Your task to perform on an android device: Go to sound settings Image 0: 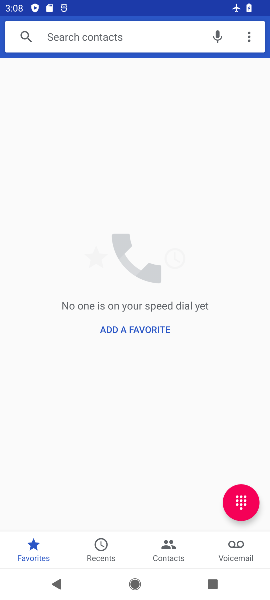
Step 0: press home button
Your task to perform on an android device: Go to sound settings Image 1: 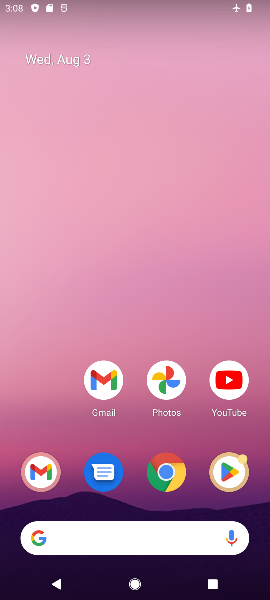
Step 1: drag from (183, 557) to (55, 42)
Your task to perform on an android device: Go to sound settings Image 2: 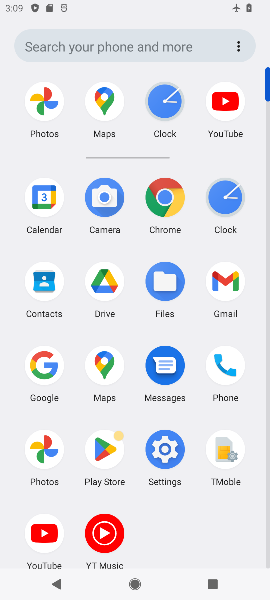
Step 2: click (168, 434)
Your task to perform on an android device: Go to sound settings Image 3: 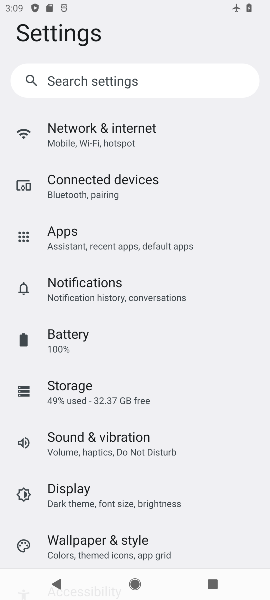
Step 3: drag from (93, 527) to (96, 216)
Your task to perform on an android device: Go to sound settings Image 4: 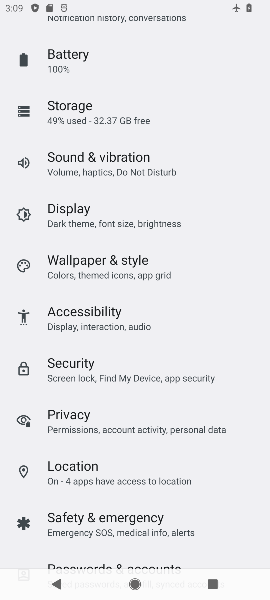
Step 4: drag from (108, 512) to (95, 149)
Your task to perform on an android device: Go to sound settings Image 5: 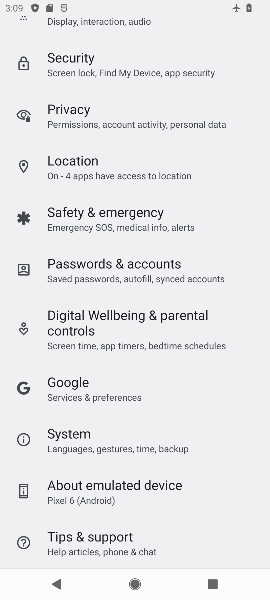
Step 5: drag from (119, 90) to (154, 564)
Your task to perform on an android device: Go to sound settings Image 6: 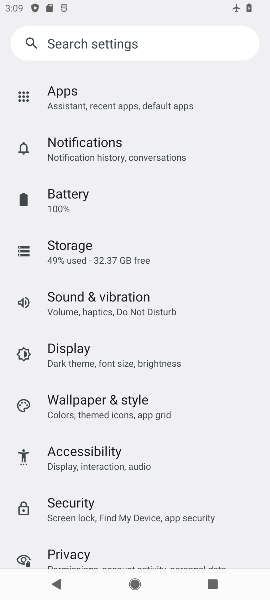
Step 6: drag from (128, 264) to (133, 559)
Your task to perform on an android device: Go to sound settings Image 7: 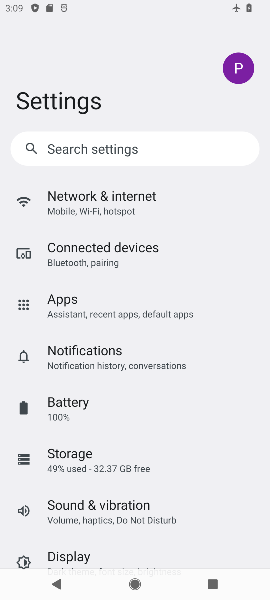
Step 7: drag from (119, 533) to (128, 338)
Your task to perform on an android device: Go to sound settings Image 8: 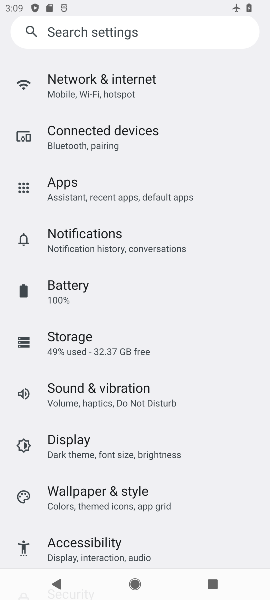
Step 8: click (57, 402)
Your task to perform on an android device: Go to sound settings Image 9: 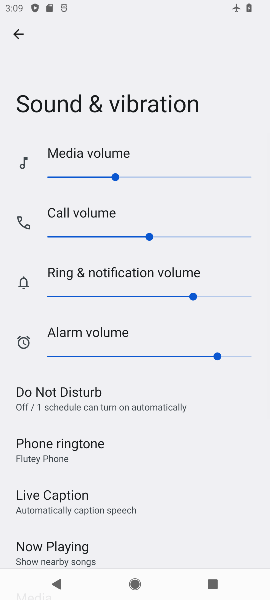
Step 9: task complete